Your task to perform on an android device: move a message to another label in the gmail app Image 0: 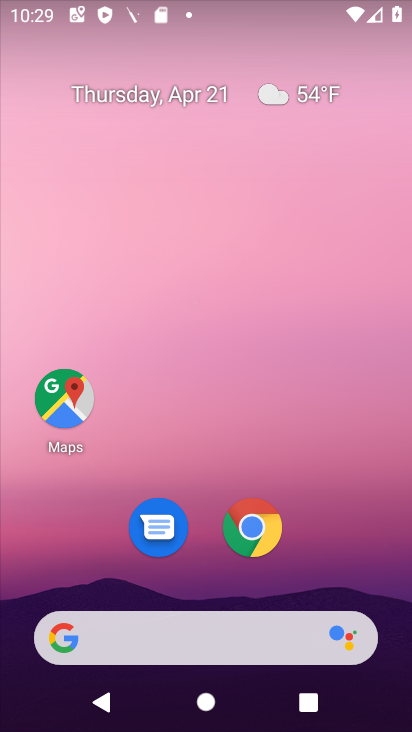
Step 0: drag from (303, 447) to (292, 133)
Your task to perform on an android device: move a message to another label in the gmail app Image 1: 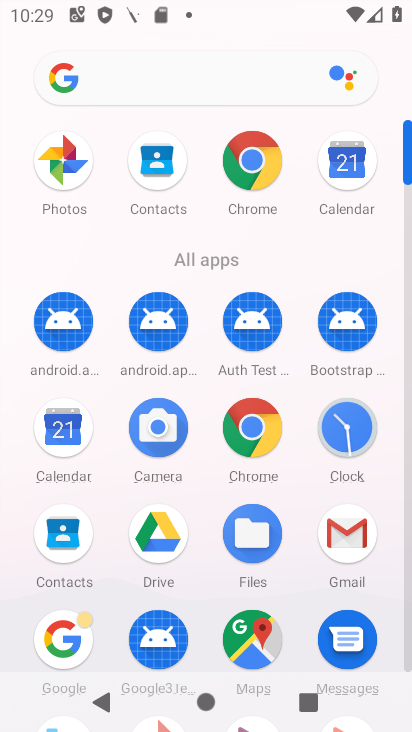
Step 1: click (357, 548)
Your task to perform on an android device: move a message to another label in the gmail app Image 2: 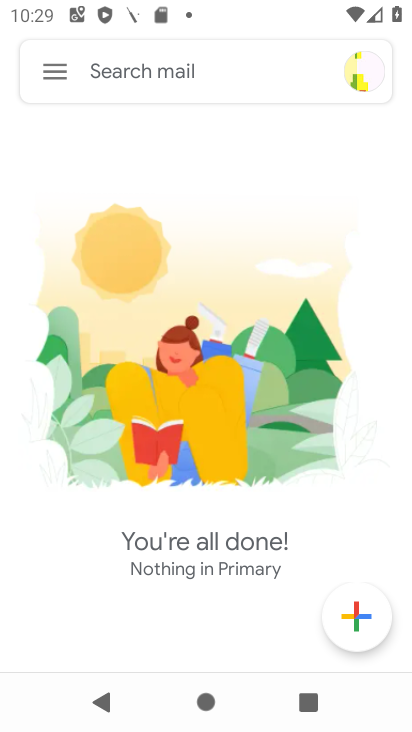
Step 2: click (49, 75)
Your task to perform on an android device: move a message to another label in the gmail app Image 3: 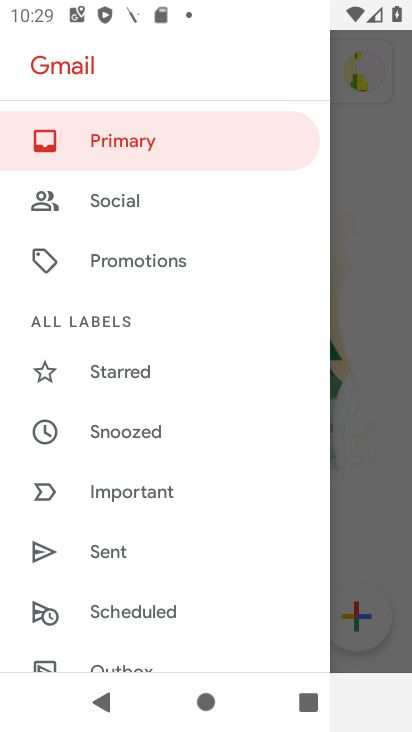
Step 3: click (378, 540)
Your task to perform on an android device: move a message to another label in the gmail app Image 4: 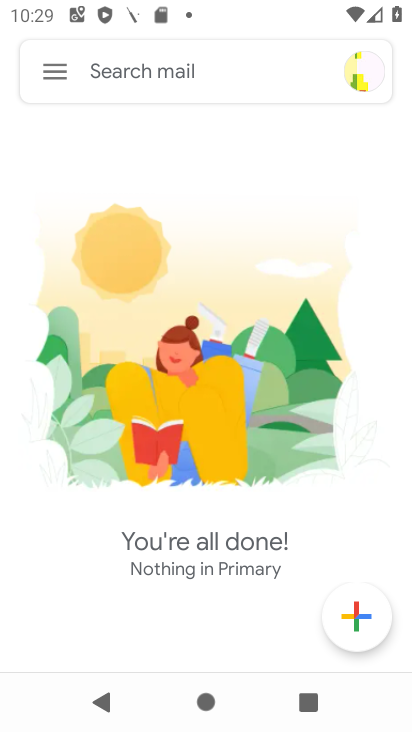
Step 4: task complete